Your task to perform on an android device: open app "Microsoft Excel" Image 0: 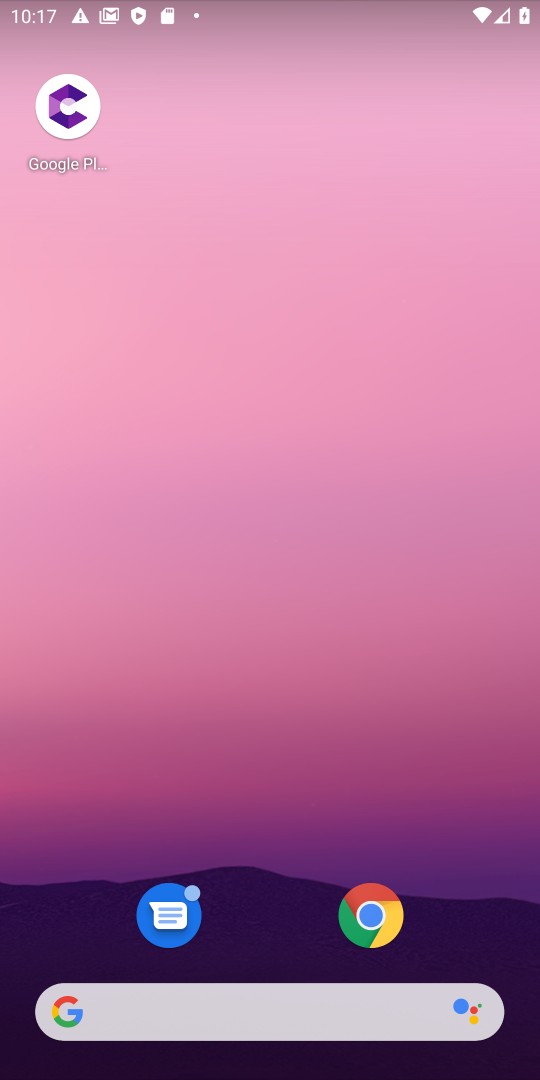
Step 0: drag from (289, 896) to (234, 93)
Your task to perform on an android device: open app "Microsoft Excel" Image 1: 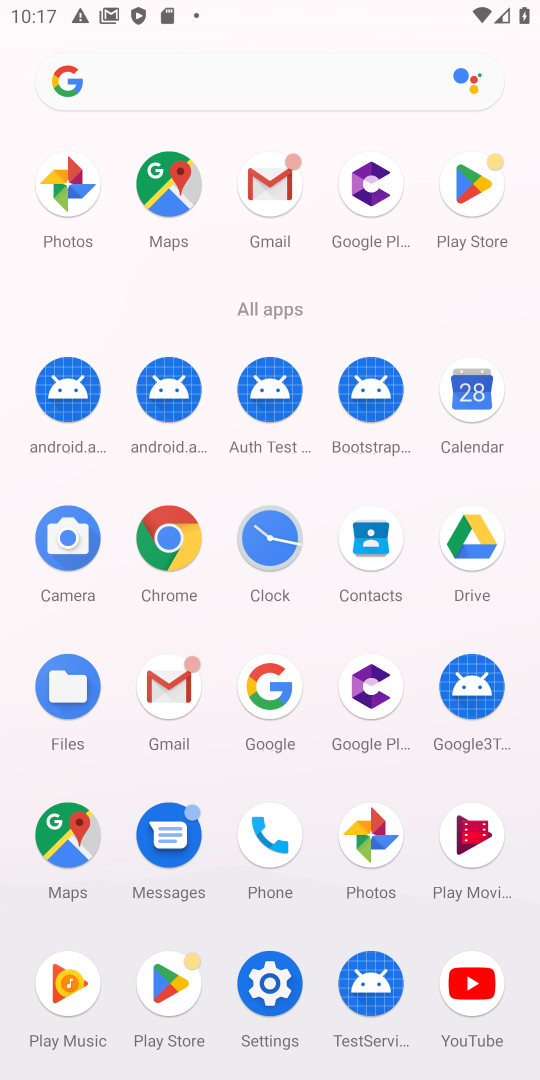
Step 1: click (457, 186)
Your task to perform on an android device: open app "Microsoft Excel" Image 2: 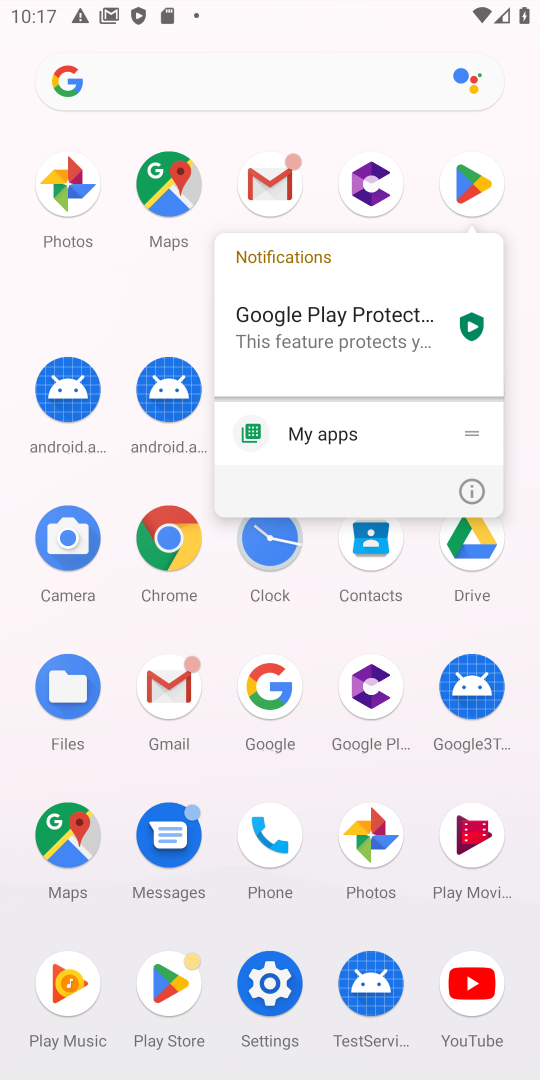
Step 2: click (476, 160)
Your task to perform on an android device: open app "Microsoft Excel" Image 3: 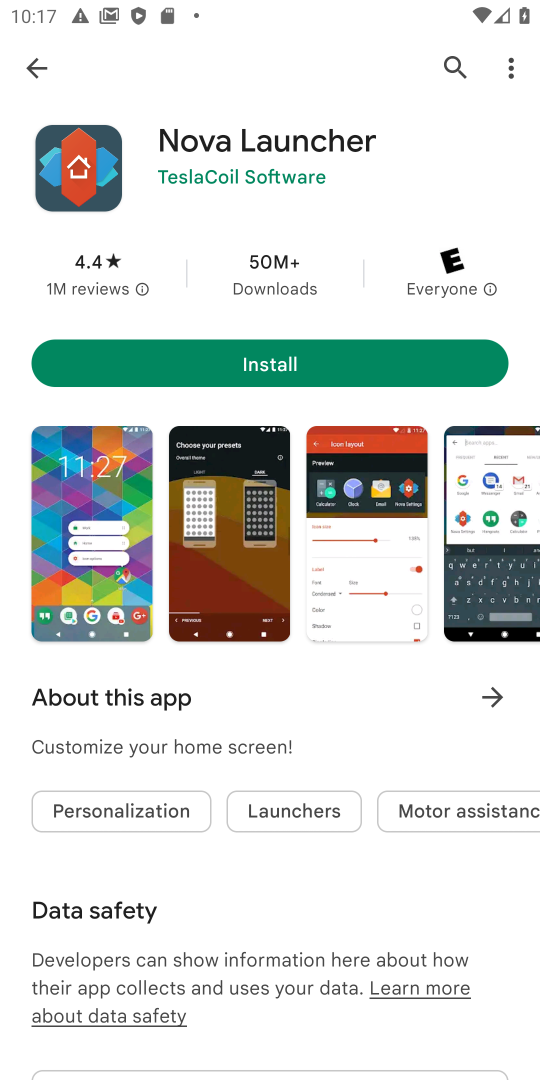
Step 3: click (28, 45)
Your task to perform on an android device: open app "Microsoft Excel" Image 4: 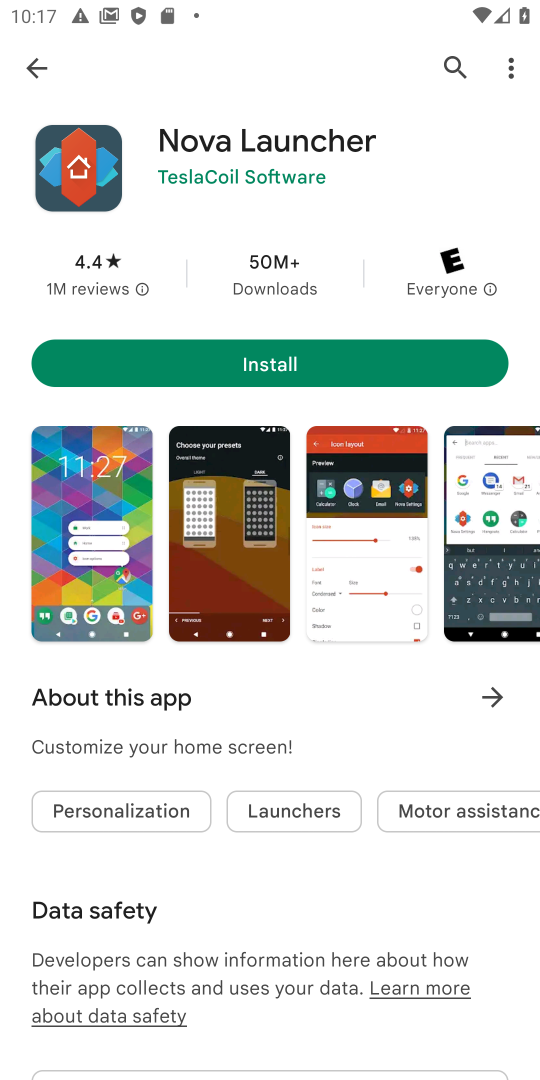
Step 4: click (23, 69)
Your task to perform on an android device: open app "Microsoft Excel" Image 5: 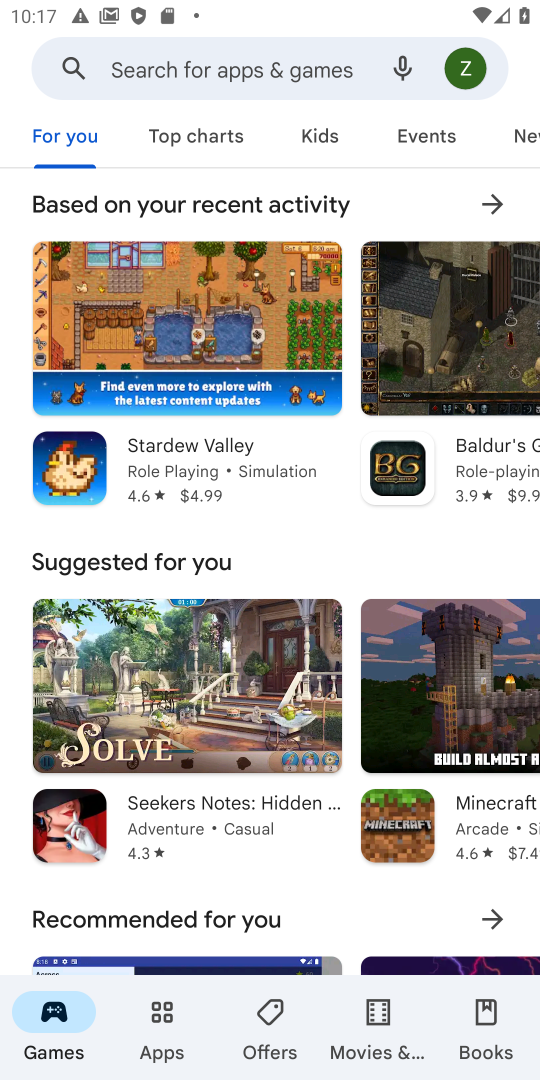
Step 5: click (225, 70)
Your task to perform on an android device: open app "Microsoft Excel" Image 6: 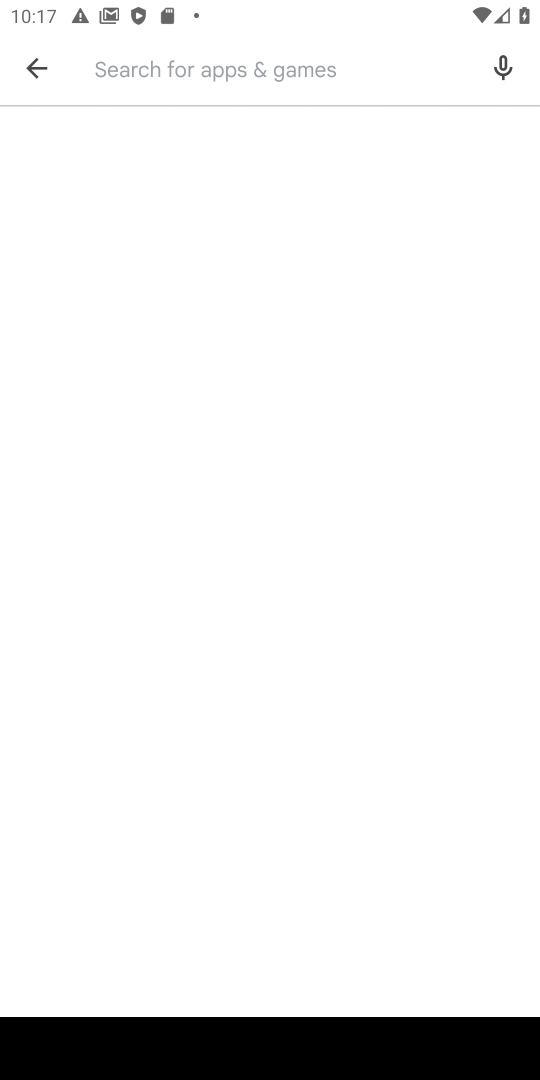
Step 6: click (337, 1078)
Your task to perform on an android device: open app "Microsoft Excel" Image 7: 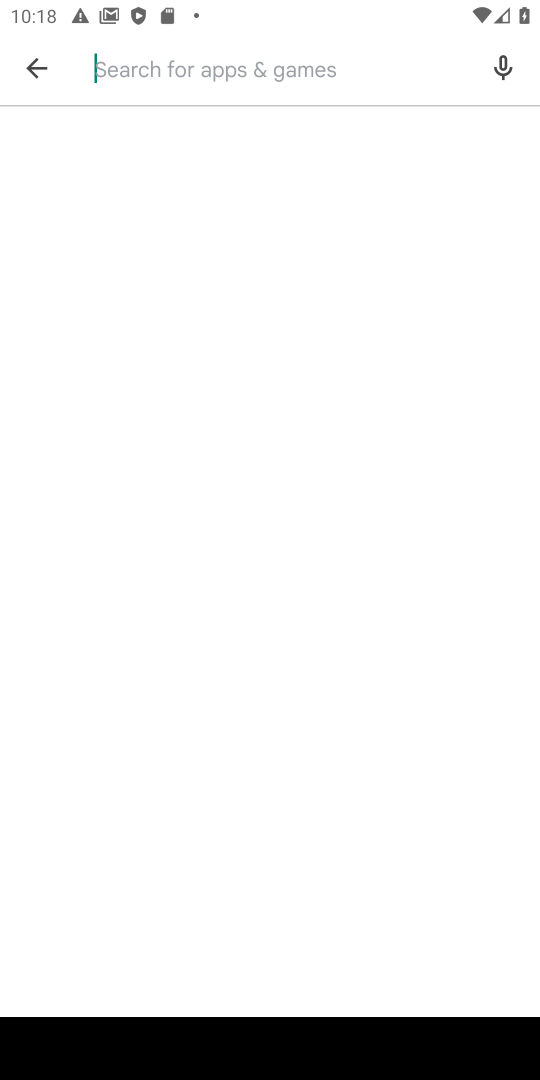
Step 7: type ""Microsoft Excel"
Your task to perform on an android device: open app "Microsoft Excel" Image 8: 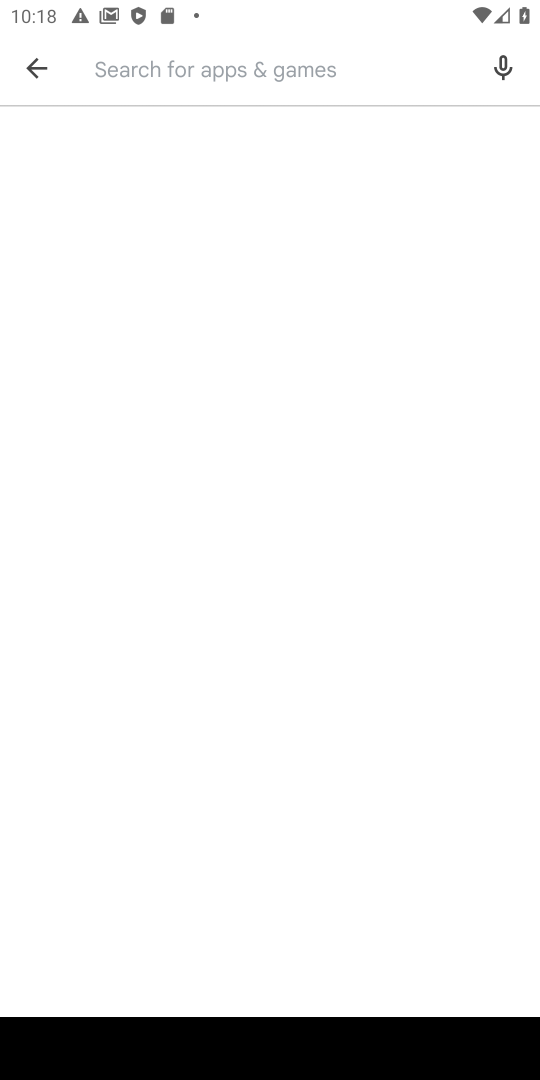
Step 8: type ""
Your task to perform on an android device: open app "Microsoft Excel" Image 9: 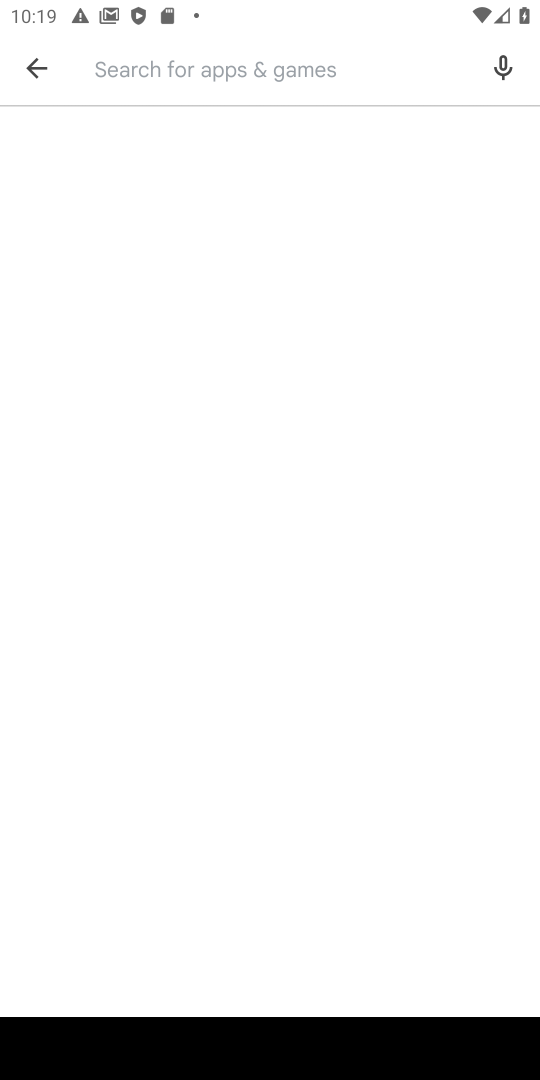
Step 9: type "Microsoft Excel"
Your task to perform on an android device: open app "Microsoft Excel" Image 10: 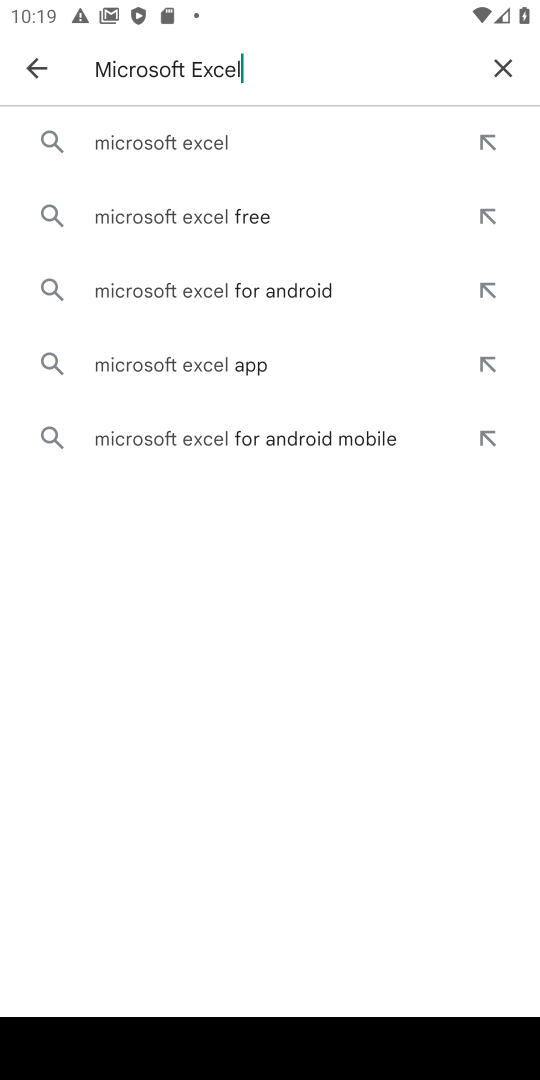
Step 10: click (162, 136)
Your task to perform on an android device: open app "Microsoft Excel" Image 11: 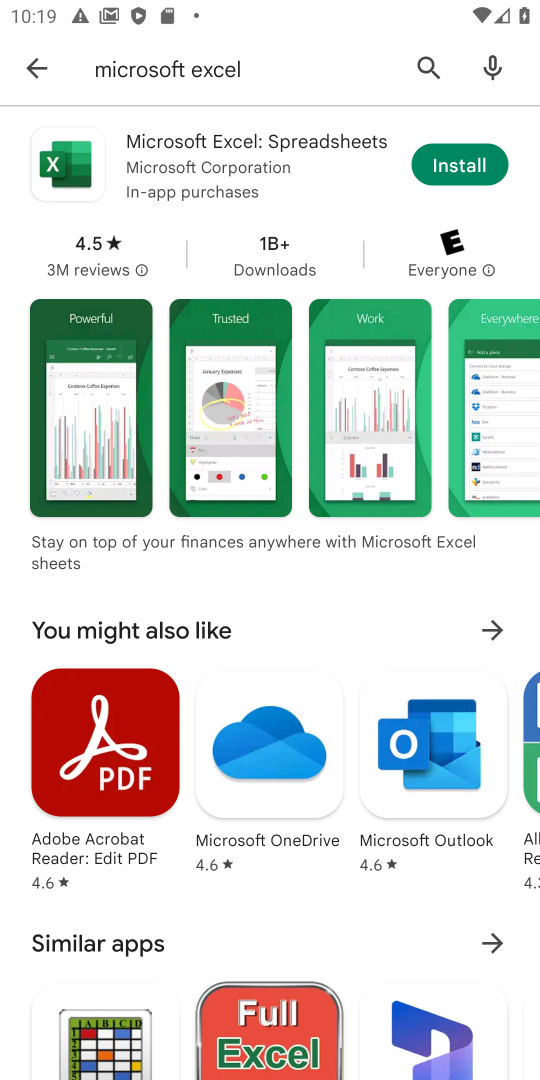
Step 11: task complete